Your task to perform on an android device: turn off data saver in the chrome app Image 0: 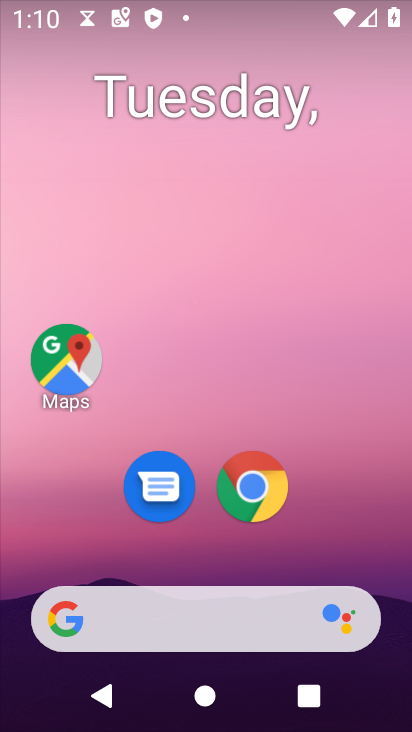
Step 0: click (264, 491)
Your task to perform on an android device: turn off data saver in the chrome app Image 1: 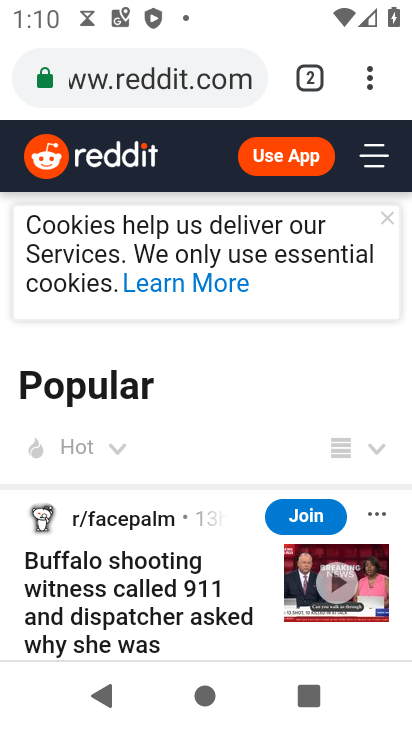
Step 1: click (378, 99)
Your task to perform on an android device: turn off data saver in the chrome app Image 2: 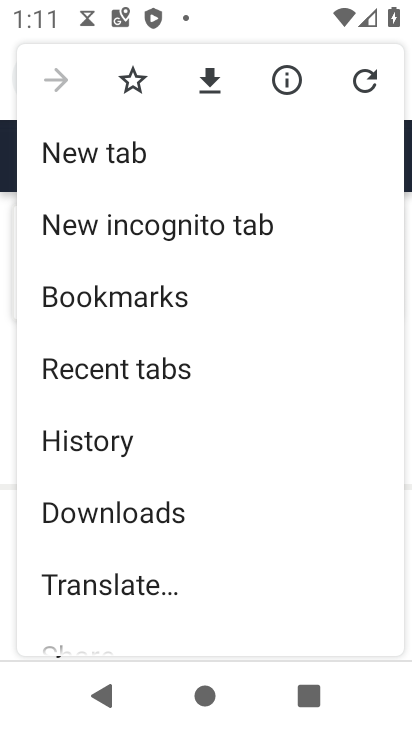
Step 2: drag from (251, 628) to (233, 361)
Your task to perform on an android device: turn off data saver in the chrome app Image 3: 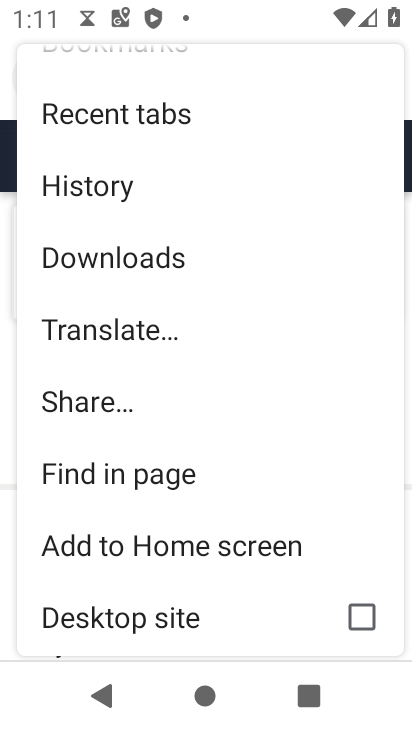
Step 3: drag from (253, 616) to (224, 256)
Your task to perform on an android device: turn off data saver in the chrome app Image 4: 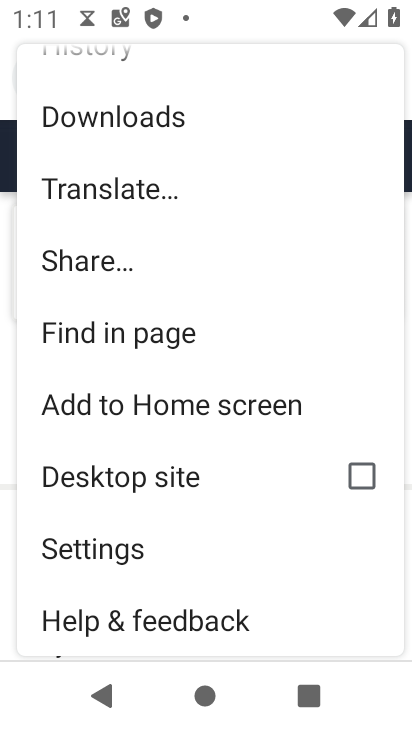
Step 4: click (206, 543)
Your task to perform on an android device: turn off data saver in the chrome app Image 5: 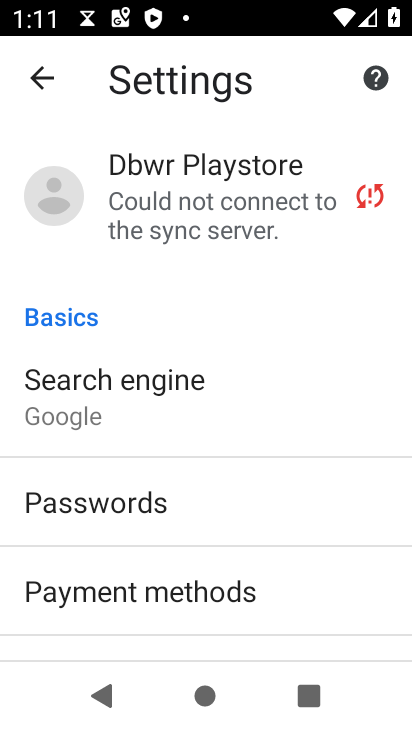
Step 5: drag from (229, 619) to (225, 223)
Your task to perform on an android device: turn off data saver in the chrome app Image 6: 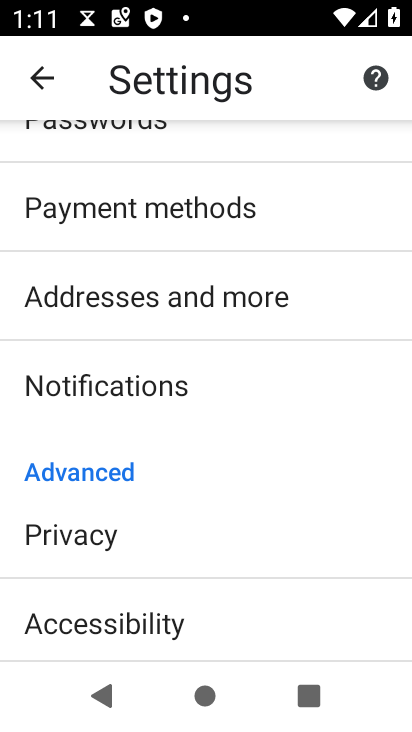
Step 6: drag from (274, 585) to (257, 252)
Your task to perform on an android device: turn off data saver in the chrome app Image 7: 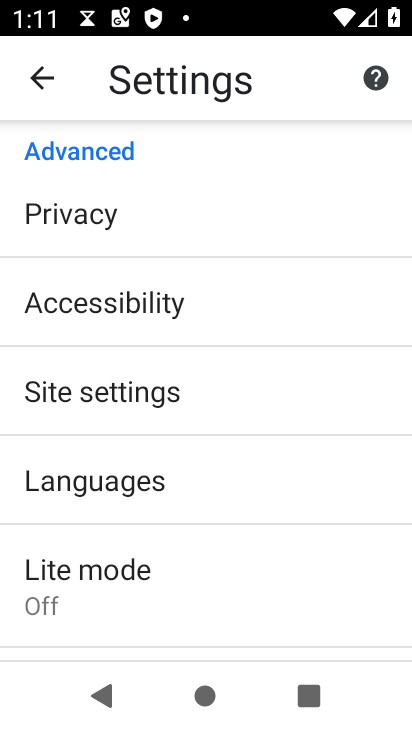
Step 7: click (259, 597)
Your task to perform on an android device: turn off data saver in the chrome app Image 8: 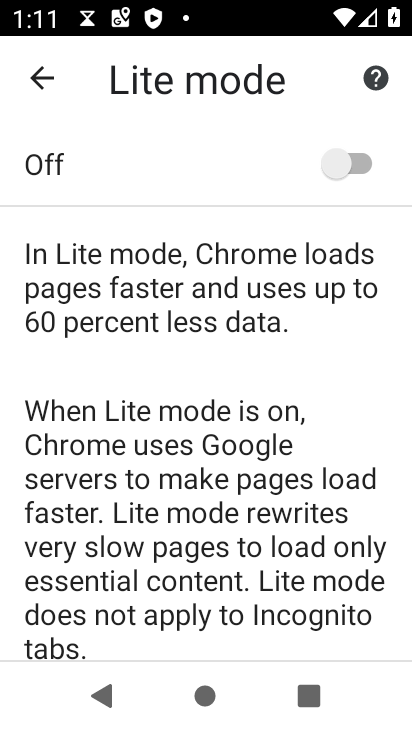
Step 8: task complete